Your task to perform on an android device: open wifi settings Image 0: 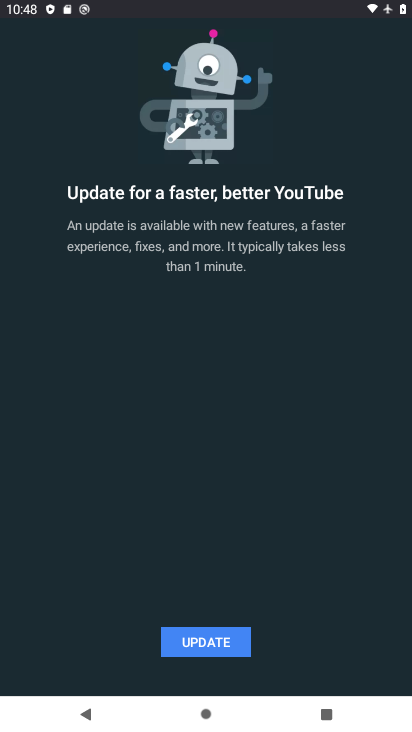
Step 0: press home button
Your task to perform on an android device: open wifi settings Image 1: 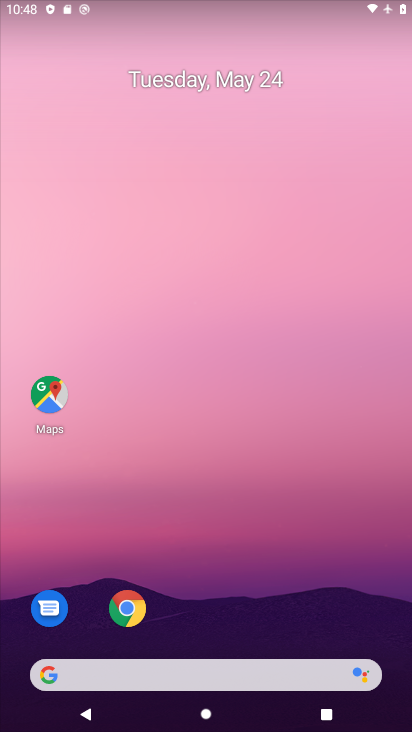
Step 1: drag from (393, 630) to (326, 131)
Your task to perform on an android device: open wifi settings Image 2: 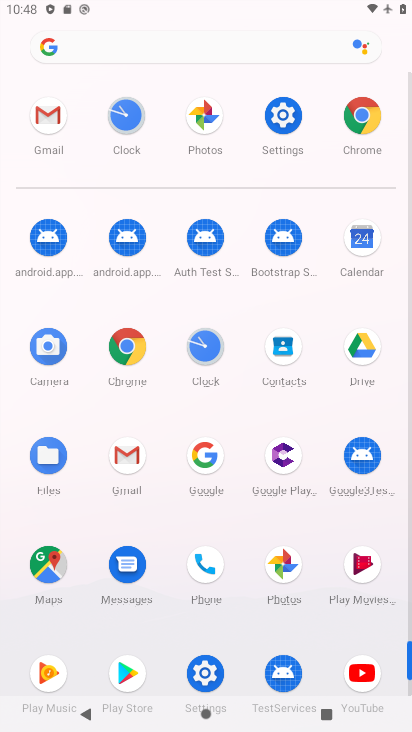
Step 2: click (410, 632)
Your task to perform on an android device: open wifi settings Image 3: 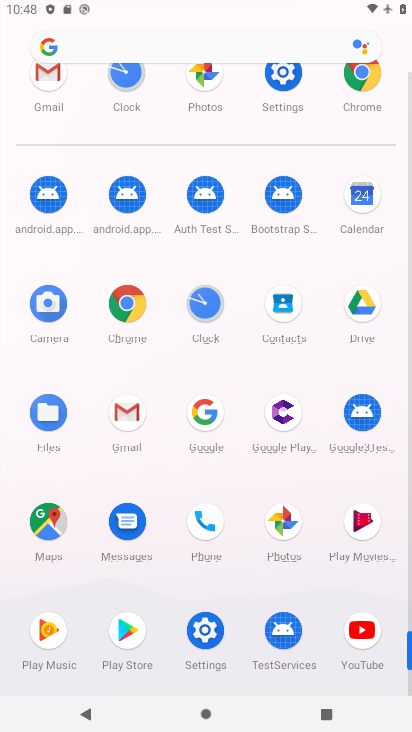
Step 3: click (204, 632)
Your task to perform on an android device: open wifi settings Image 4: 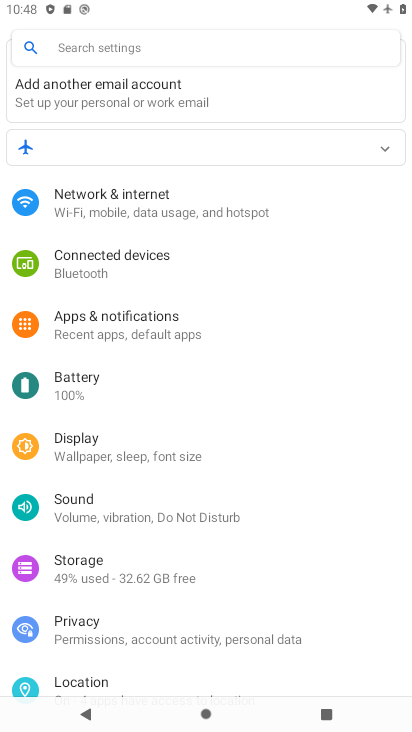
Step 4: click (105, 200)
Your task to perform on an android device: open wifi settings Image 5: 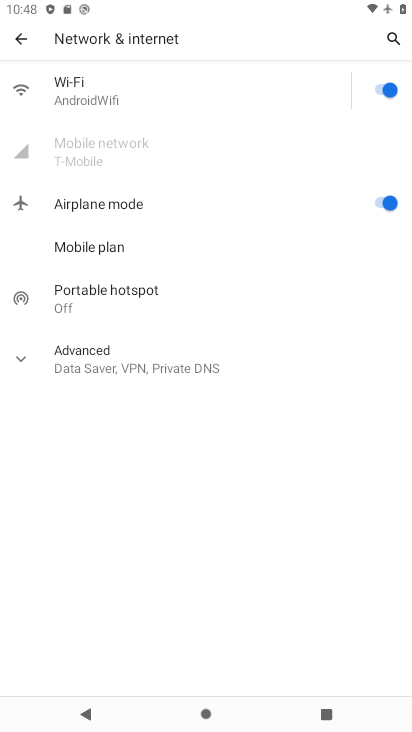
Step 5: click (54, 86)
Your task to perform on an android device: open wifi settings Image 6: 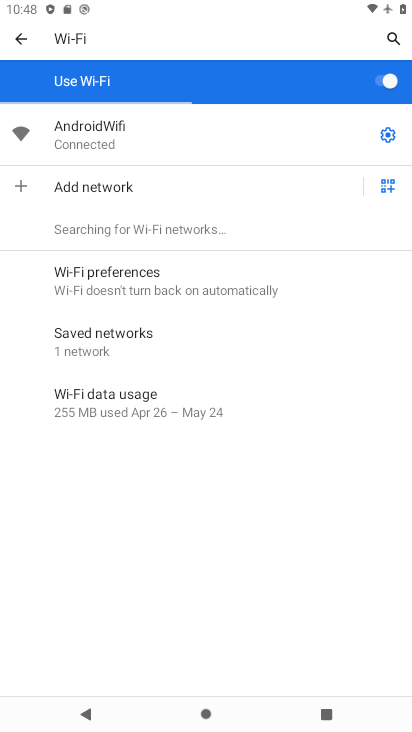
Step 6: click (389, 136)
Your task to perform on an android device: open wifi settings Image 7: 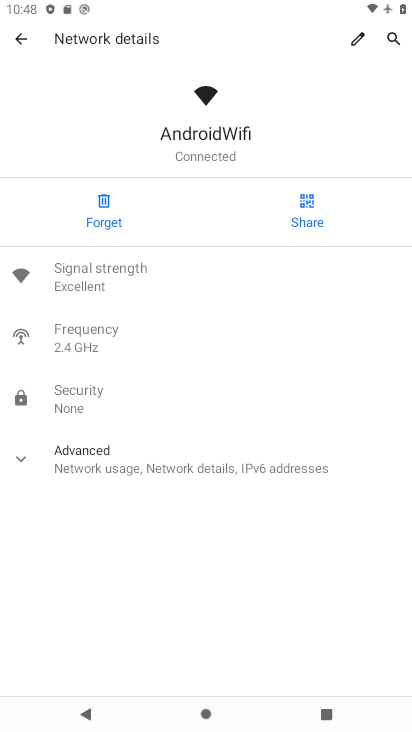
Step 7: click (18, 457)
Your task to perform on an android device: open wifi settings Image 8: 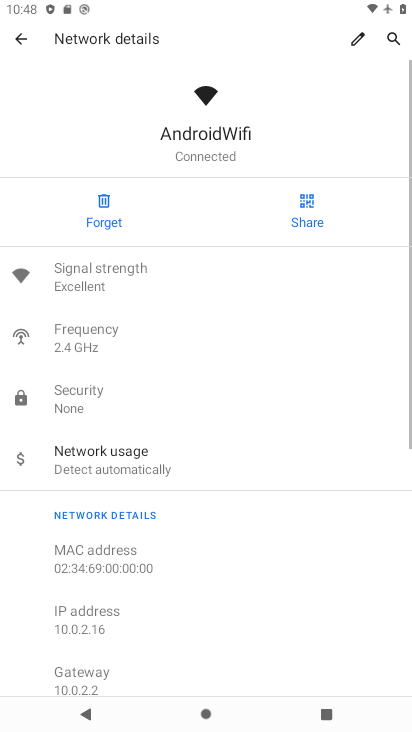
Step 8: task complete